Your task to perform on an android device: What's the US dollar exchange rate against the Brazilian Real? Image 0: 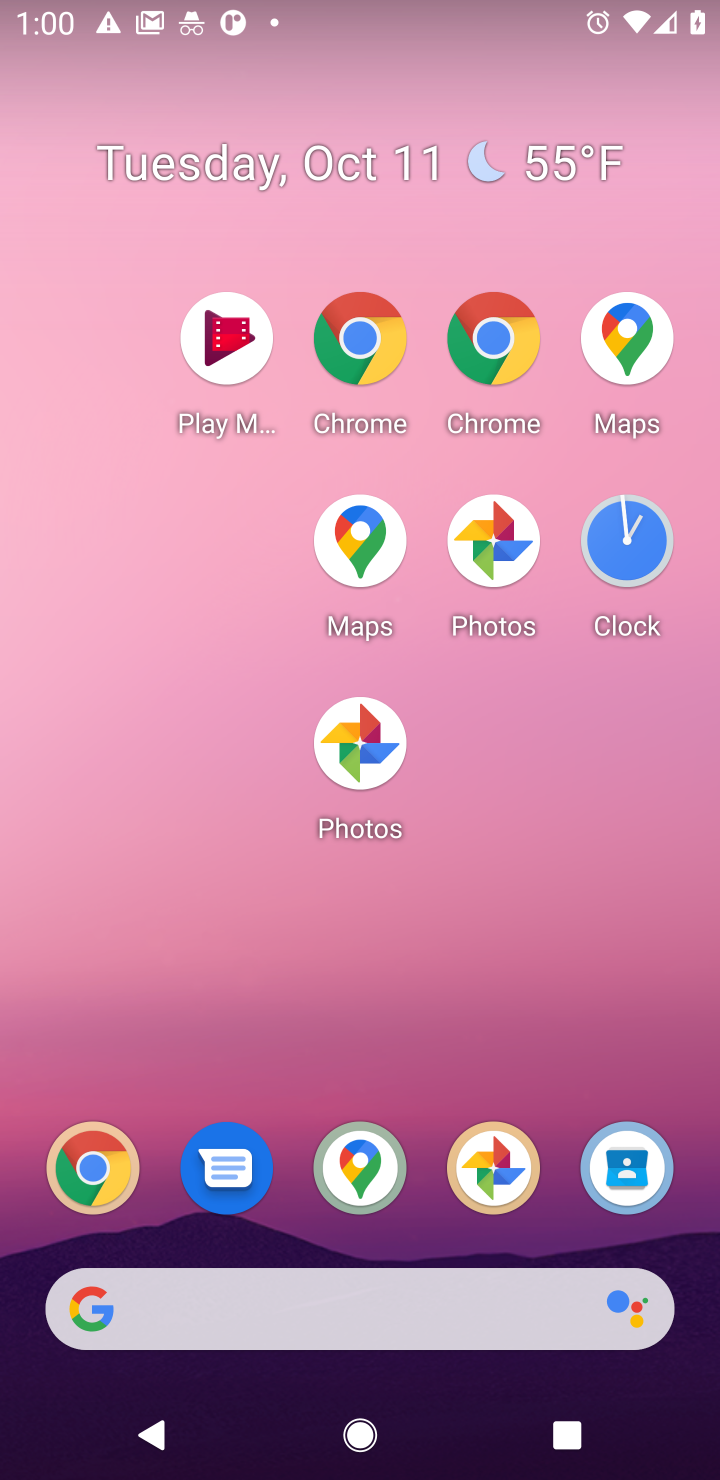
Step 0: drag from (492, 549) to (650, 7)
Your task to perform on an android device: What's the US dollar exchange rate against the Brazilian Real? Image 1: 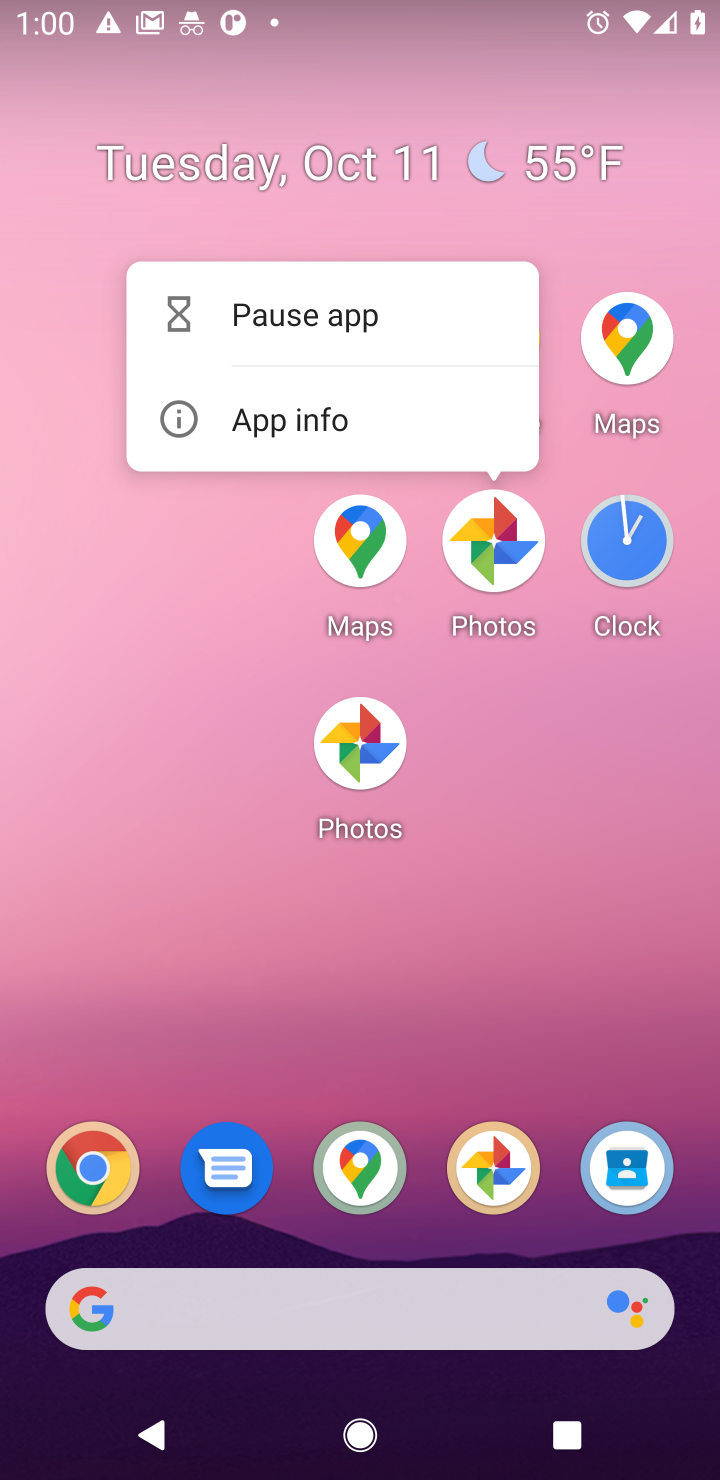
Step 1: drag from (579, 921) to (677, 170)
Your task to perform on an android device: What's the US dollar exchange rate against the Brazilian Real? Image 2: 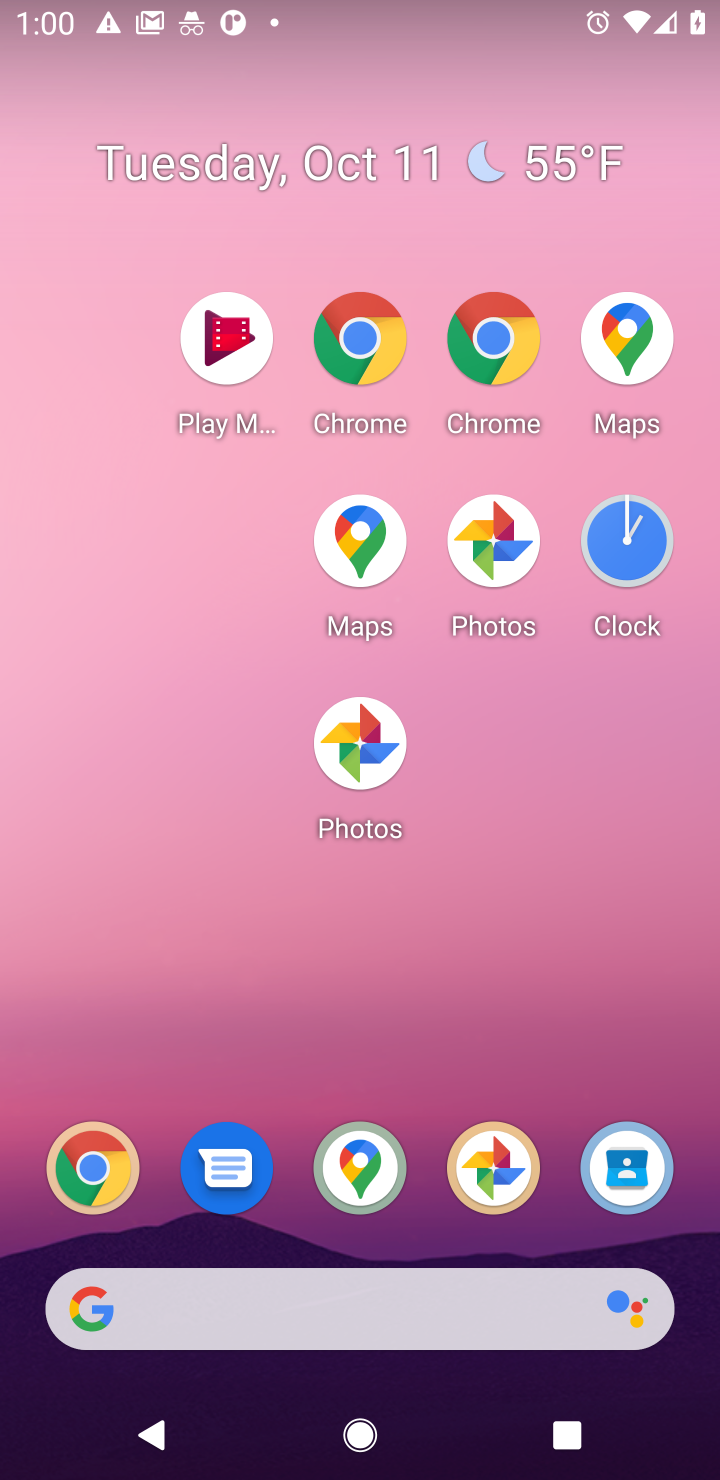
Step 2: drag from (470, 963) to (645, 322)
Your task to perform on an android device: What's the US dollar exchange rate against the Brazilian Real? Image 3: 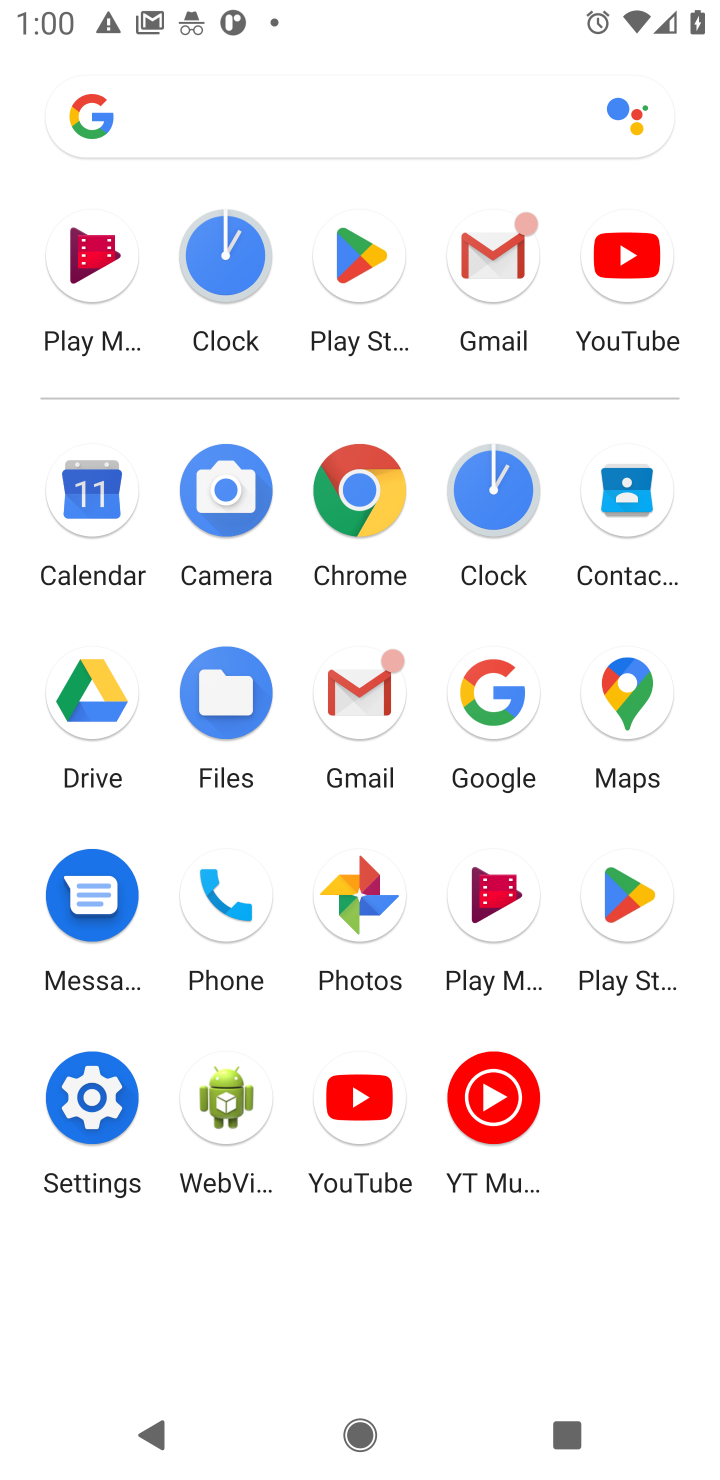
Step 3: click (486, 688)
Your task to perform on an android device: What's the US dollar exchange rate against the Brazilian Real? Image 4: 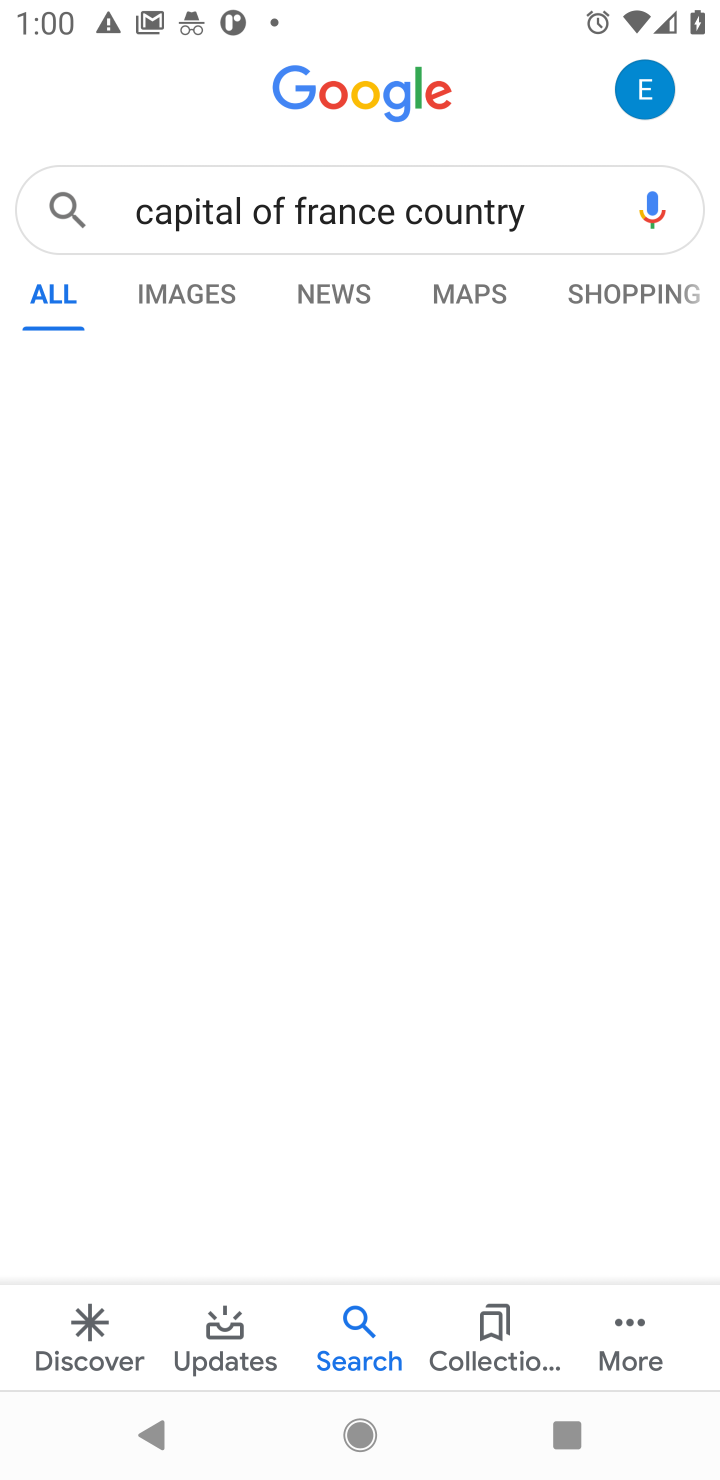
Step 4: click (561, 191)
Your task to perform on an android device: What's the US dollar exchange rate against the Brazilian Real? Image 5: 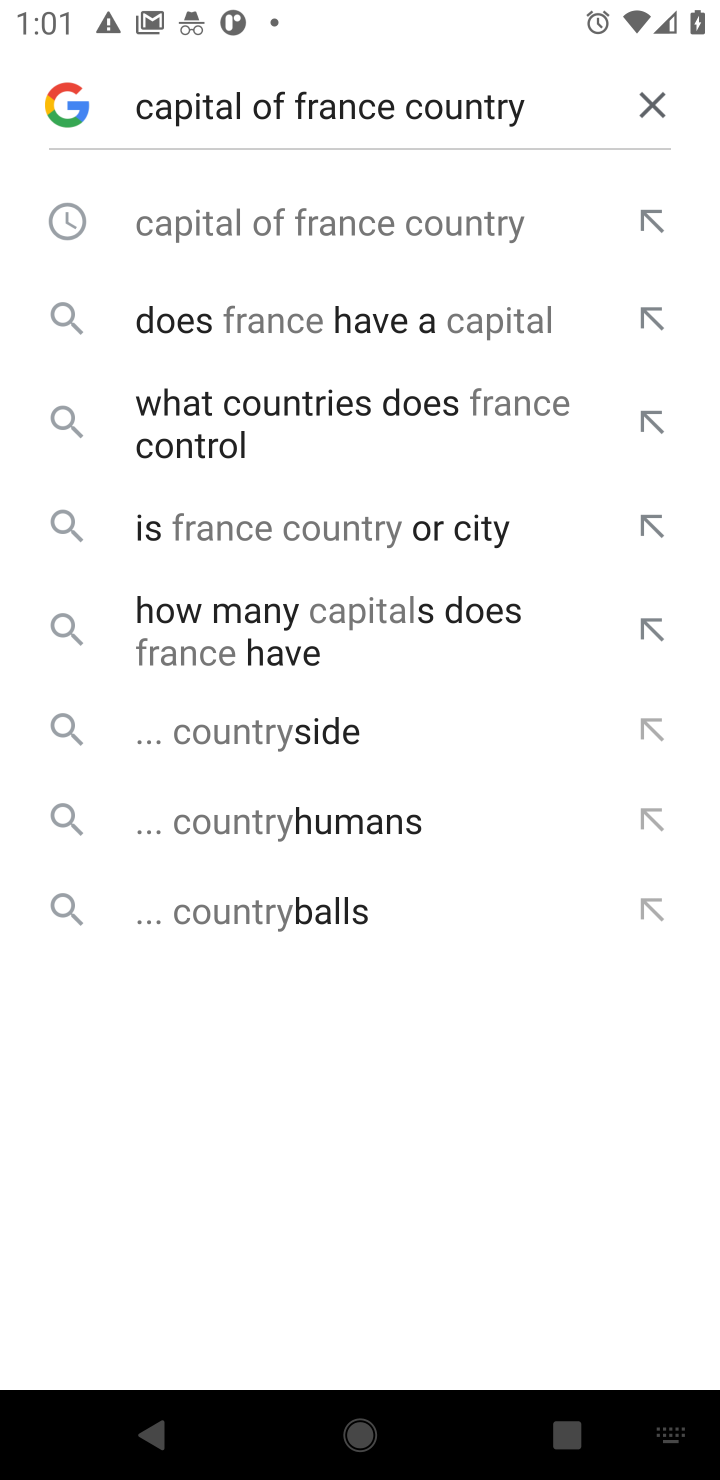
Step 5: click (648, 103)
Your task to perform on an android device: What's the US dollar exchange rate against the Brazilian Real? Image 6: 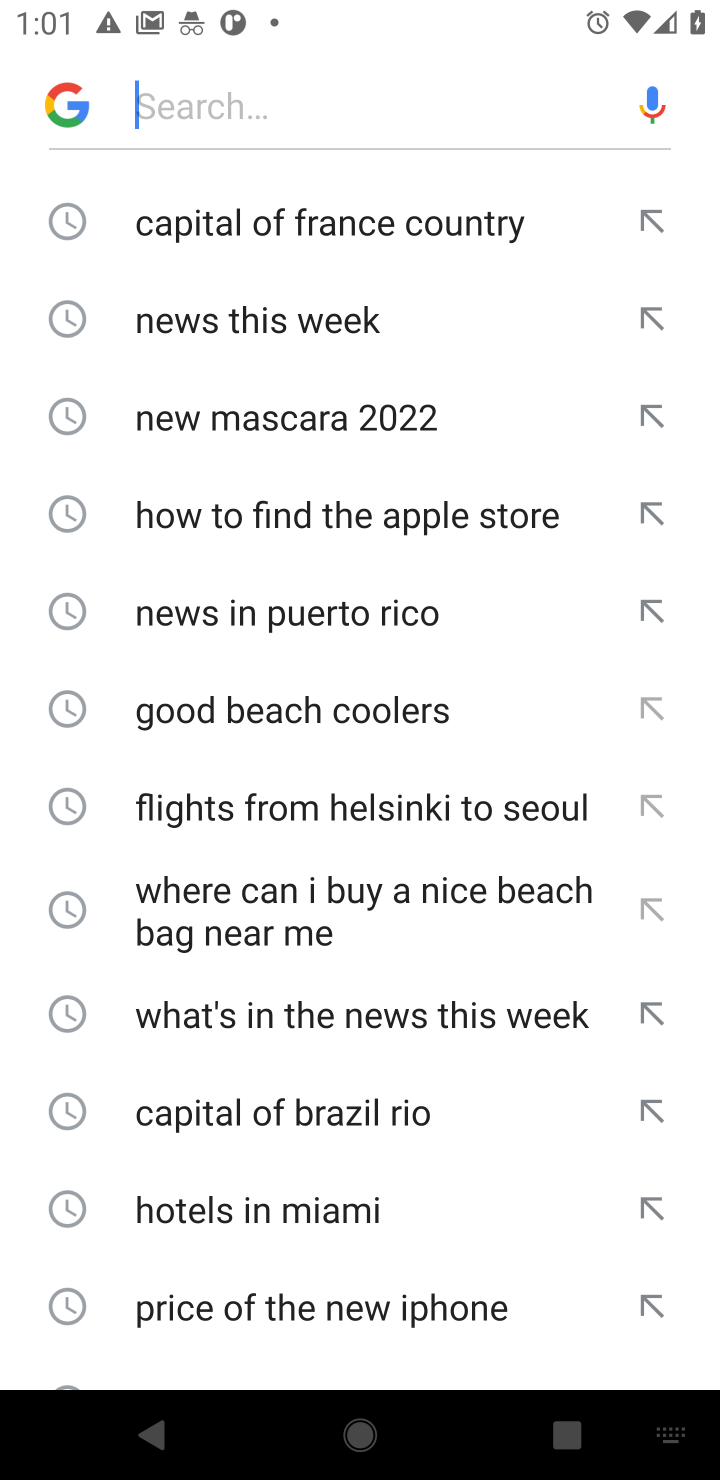
Step 6: type "What's the US dollar exchange rate against the Brazilian Real?"
Your task to perform on an android device: What's the US dollar exchange rate against the Brazilian Real? Image 7: 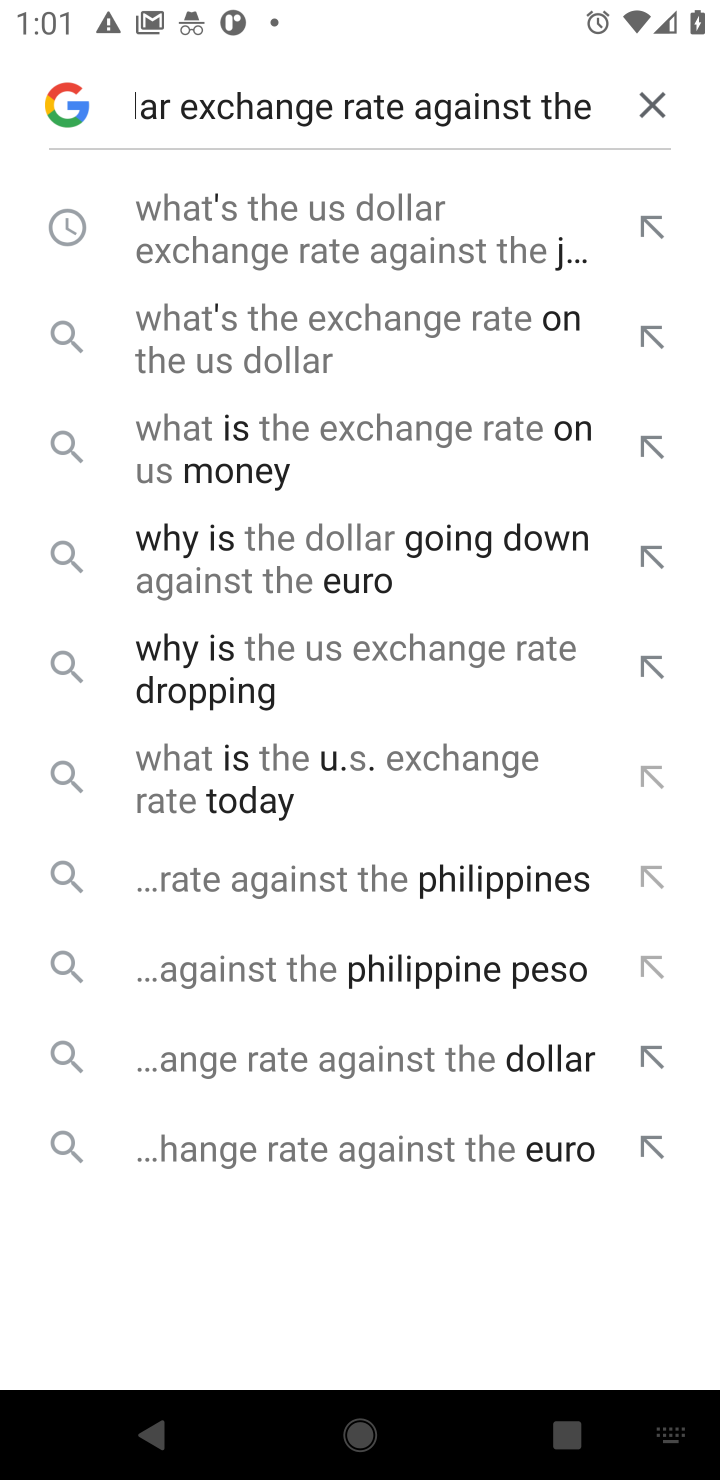
Step 7: click (491, 234)
Your task to perform on an android device: What's the US dollar exchange rate against the Brazilian Real? Image 8: 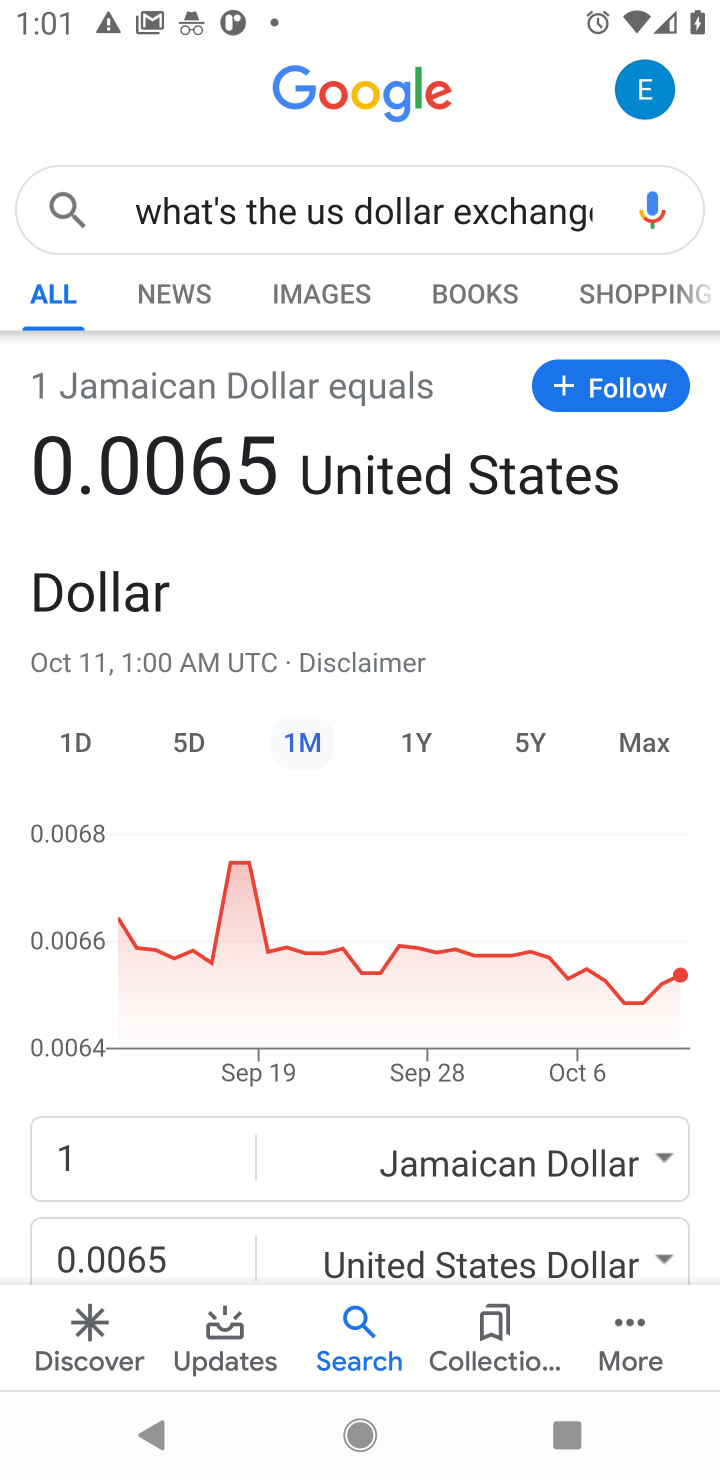
Step 8: task complete